Your task to perform on an android device: Set the phone to "Do not disturb". Image 0: 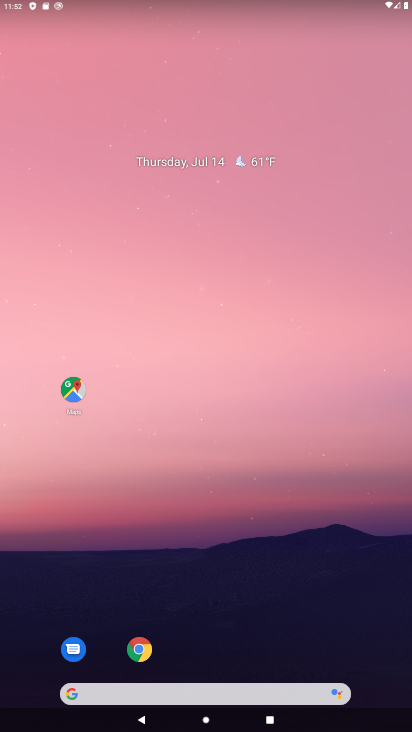
Step 0: drag from (262, 635) to (278, 0)
Your task to perform on an android device: Set the phone to "Do not disturb". Image 1: 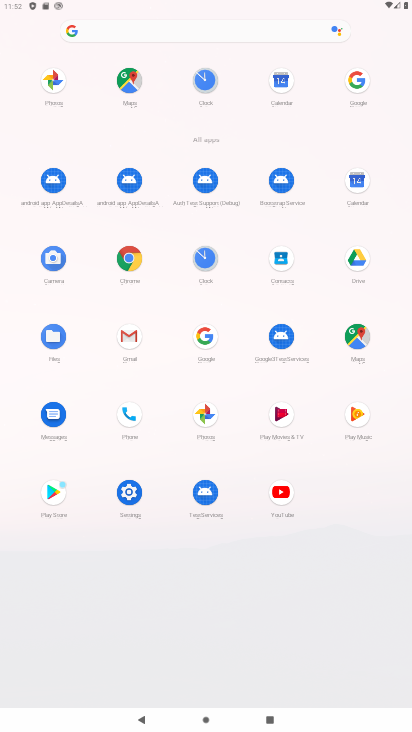
Step 1: click (134, 494)
Your task to perform on an android device: Set the phone to "Do not disturb". Image 2: 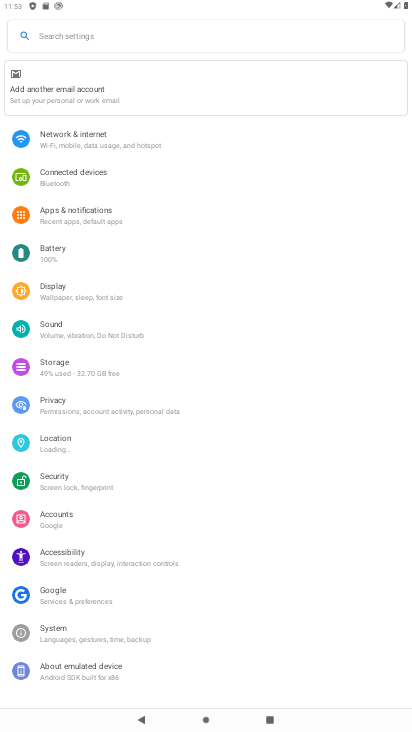
Step 2: click (76, 326)
Your task to perform on an android device: Set the phone to "Do not disturb". Image 3: 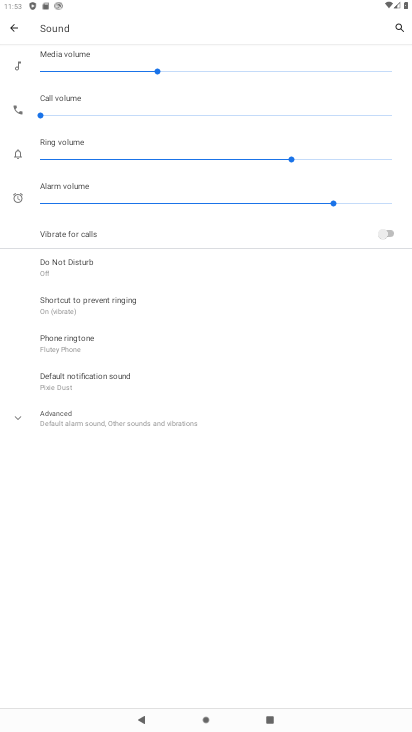
Step 3: click (52, 270)
Your task to perform on an android device: Set the phone to "Do not disturb". Image 4: 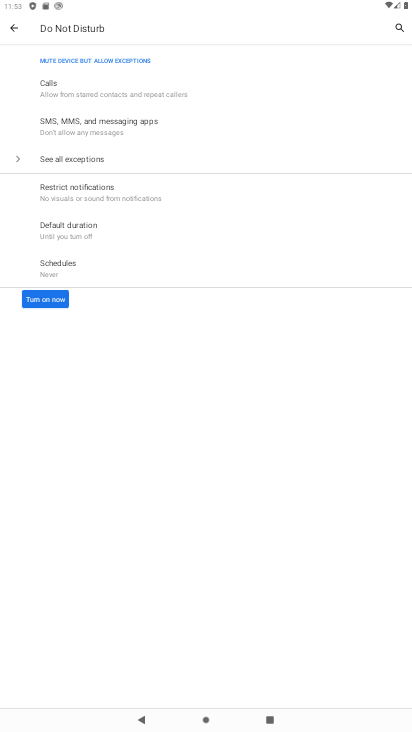
Step 4: click (50, 310)
Your task to perform on an android device: Set the phone to "Do not disturb". Image 5: 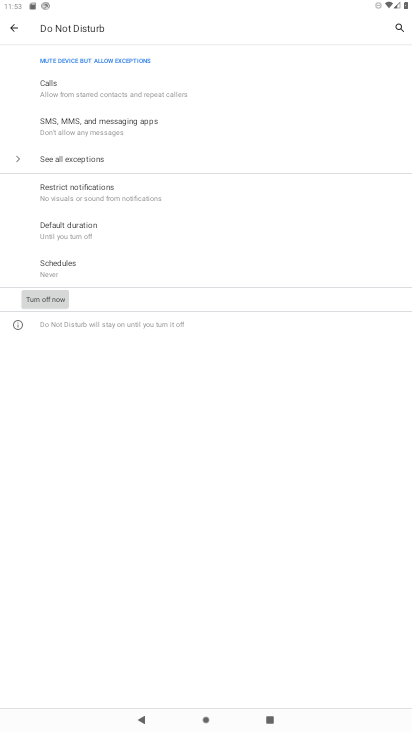
Step 5: task complete